Your task to perform on an android device: see tabs open on other devices in the chrome app Image 0: 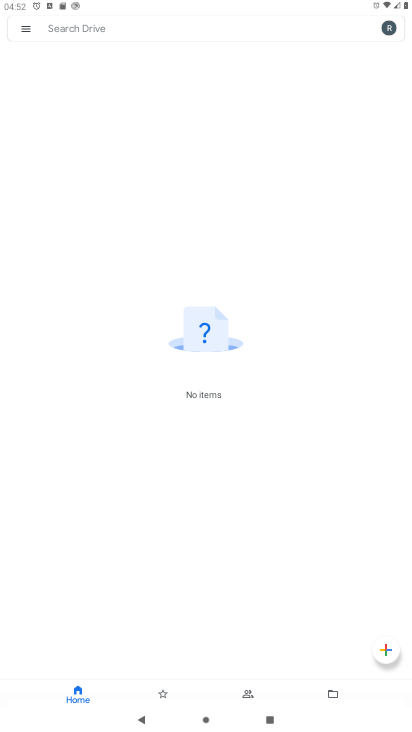
Step 0: press home button
Your task to perform on an android device: see tabs open on other devices in the chrome app Image 1: 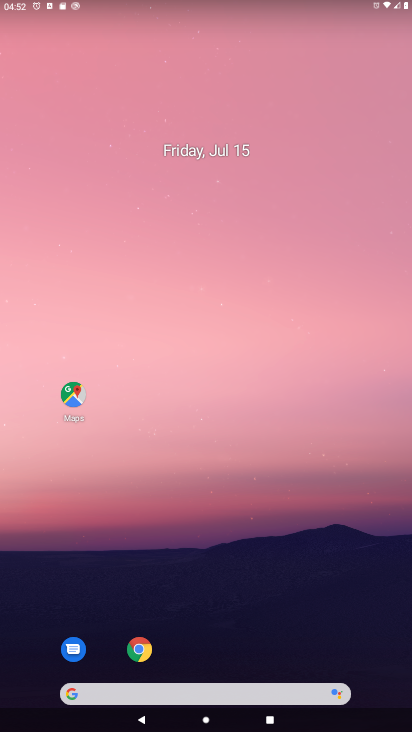
Step 1: click (138, 651)
Your task to perform on an android device: see tabs open on other devices in the chrome app Image 2: 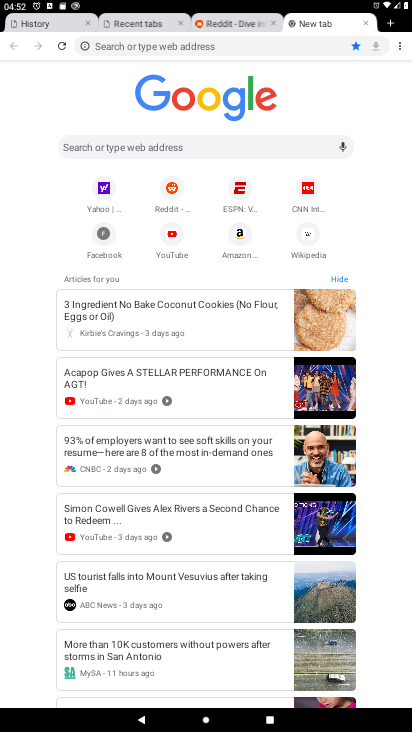
Step 2: click (399, 51)
Your task to perform on an android device: see tabs open on other devices in the chrome app Image 3: 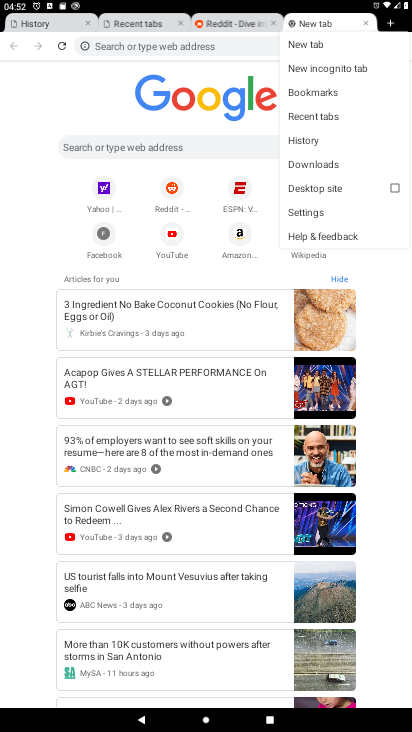
Step 3: click (309, 110)
Your task to perform on an android device: see tabs open on other devices in the chrome app Image 4: 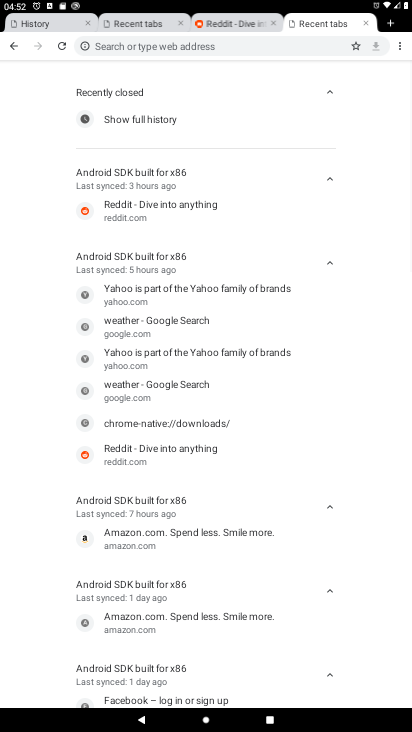
Step 4: task complete